Your task to perform on an android device: Open calendar and show me the first week of next month Image 0: 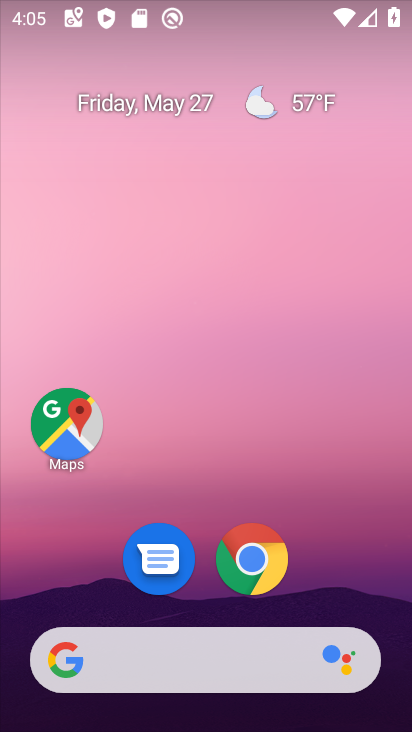
Step 0: drag from (332, 596) to (323, 295)
Your task to perform on an android device: Open calendar and show me the first week of next month Image 1: 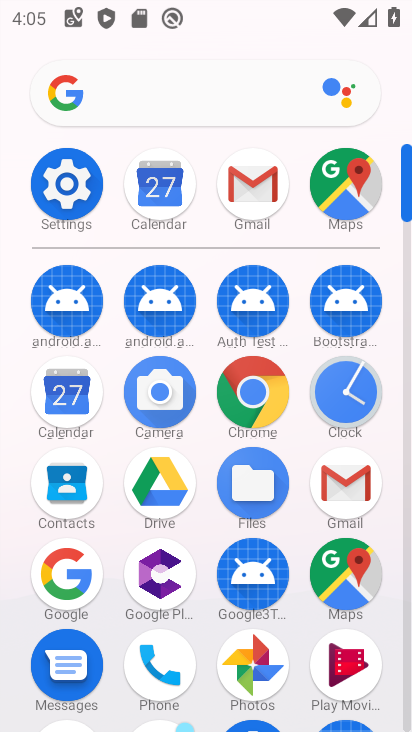
Step 1: click (80, 419)
Your task to perform on an android device: Open calendar and show me the first week of next month Image 2: 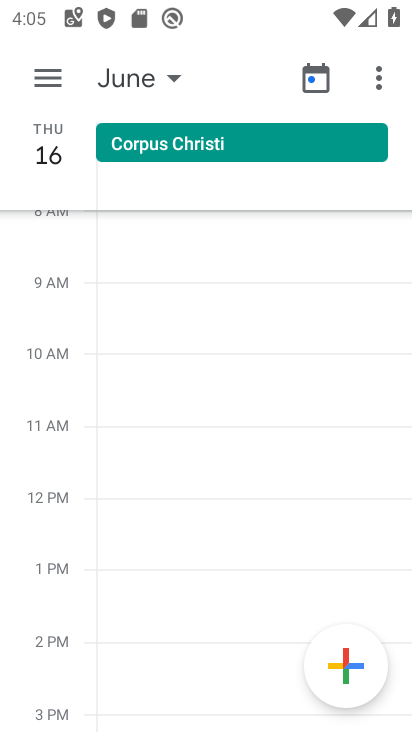
Step 2: task complete